Your task to perform on an android device: Open Chrome and go to the settings page Image 0: 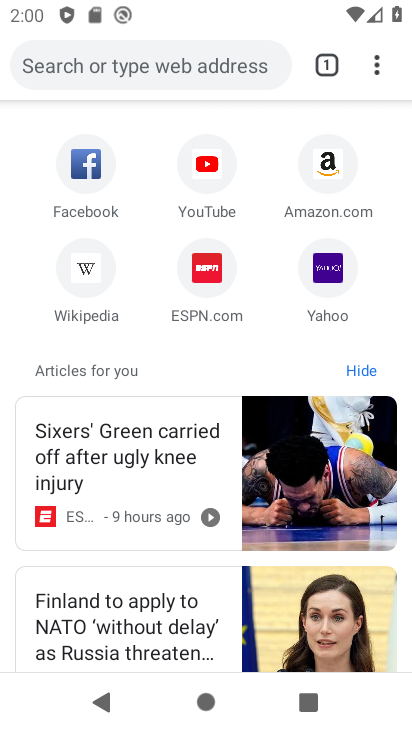
Step 0: press home button
Your task to perform on an android device: Open Chrome and go to the settings page Image 1: 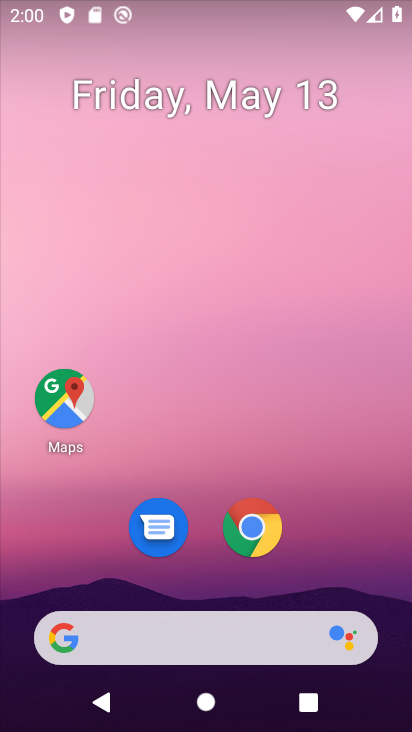
Step 1: drag from (368, 562) to (369, 138)
Your task to perform on an android device: Open Chrome and go to the settings page Image 2: 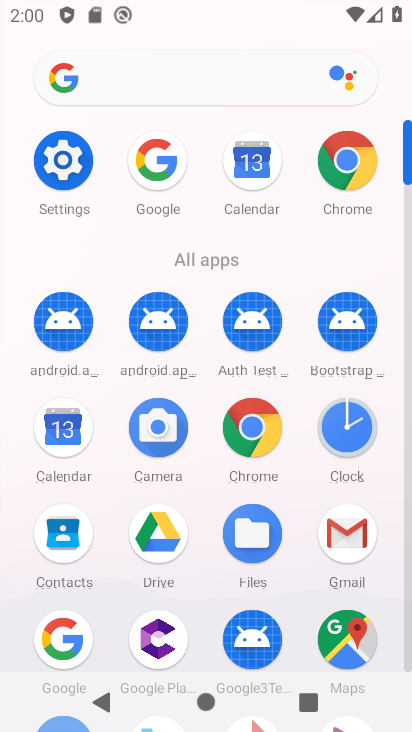
Step 2: click (359, 166)
Your task to perform on an android device: Open Chrome and go to the settings page Image 3: 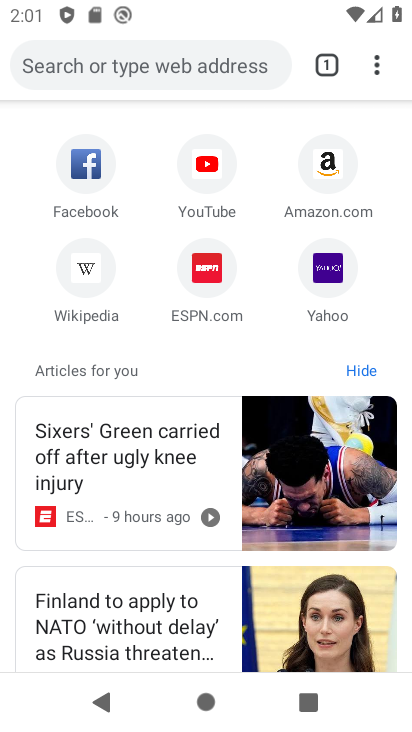
Step 3: task complete